Your task to perform on an android device: turn off notifications in google photos Image 0: 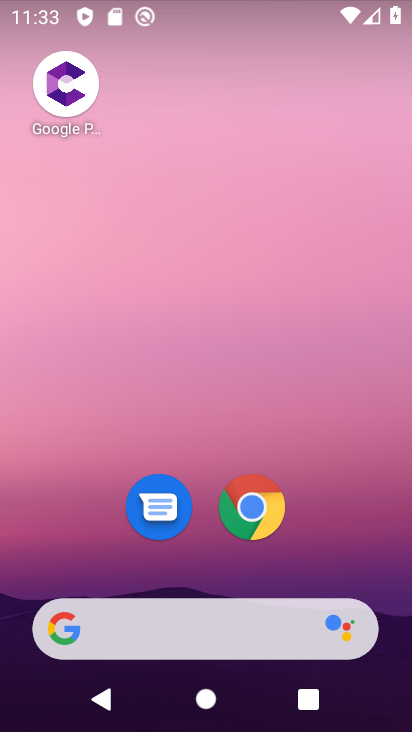
Step 0: drag from (312, 458) to (303, 61)
Your task to perform on an android device: turn off notifications in google photos Image 1: 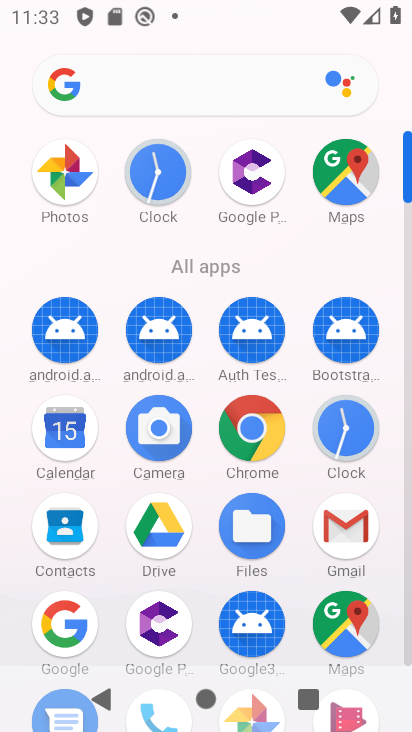
Step 1: drag from (199, 609) to (178, 264)
Your task to perform on an android device: turn off notifications in google photos Image 2: 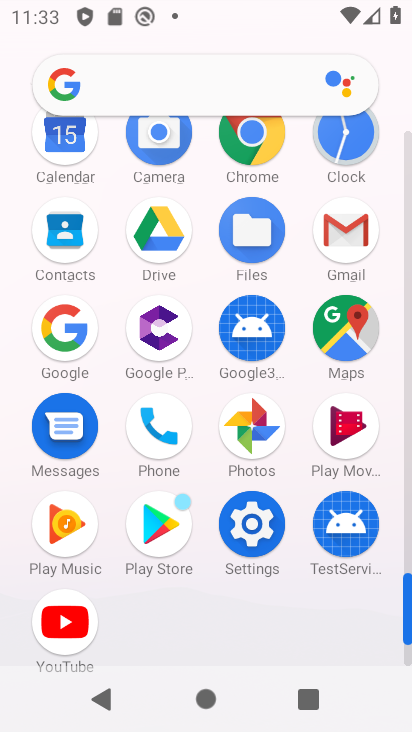
Step 2: click (238, 463)
Your task to perform on an android device: turn off notifications in google photos Image 3: 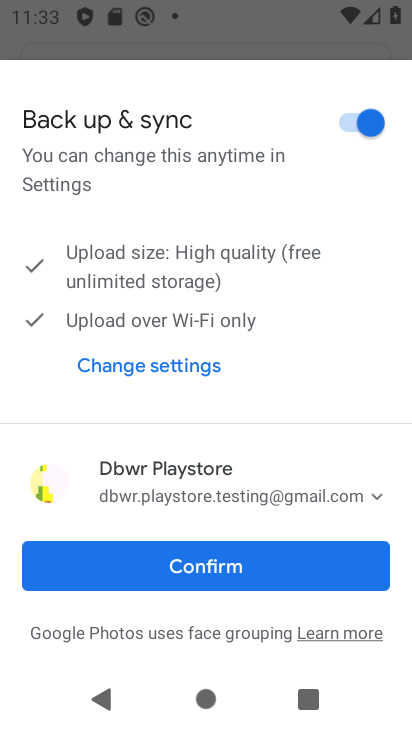
Step 3: click (236, 577)
Your task to perform on an android device: turn off notifications in google photos Image 4: 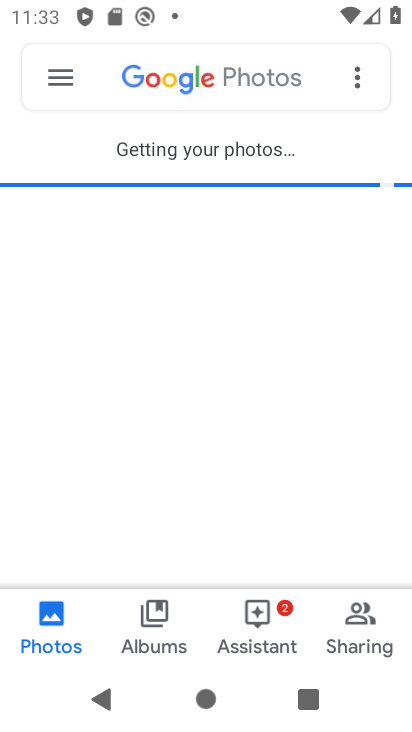
Step 4: click (53, 75)
Your task to perform on an android device: turn off notifications in google photos Image 5: 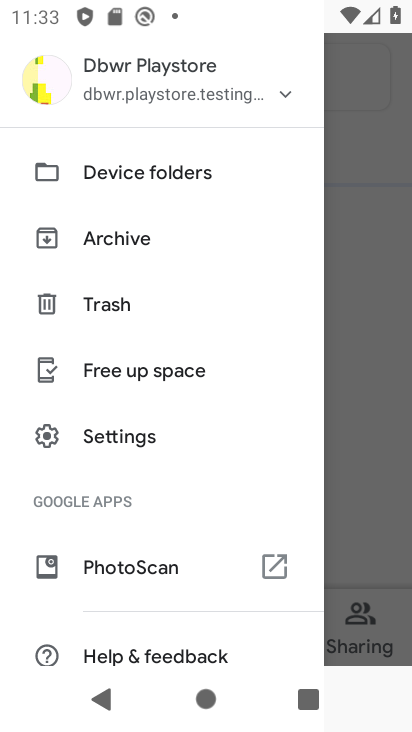
Step 5: click (132, 434)
Your task to perform on an android device: turn off notifications in google photos Image 6: 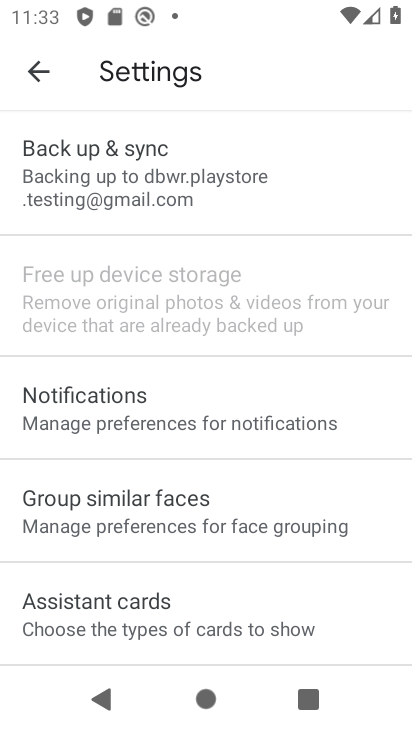
Step 6: click (163, 427)
Your task to perform on an android device: turn off notifications in google photos Image 7: 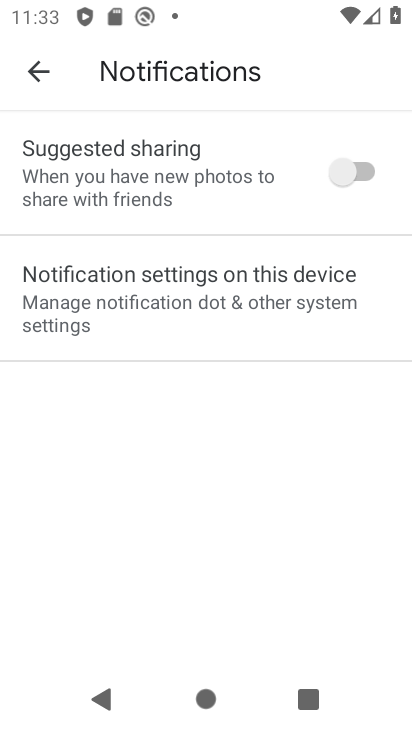
Step 7: click (192, 316)
Your task to perform on an android device: turn off notifications in google photos Image 8: 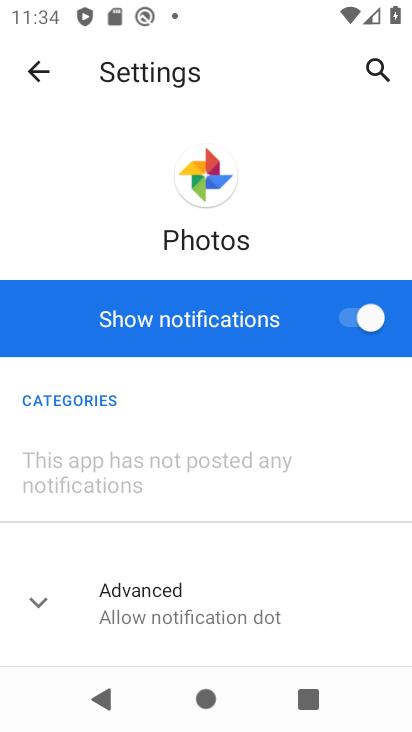
Step 8: click (381, 320)
Your task to perform on an android device: turn off notifications in google photos Image 9: 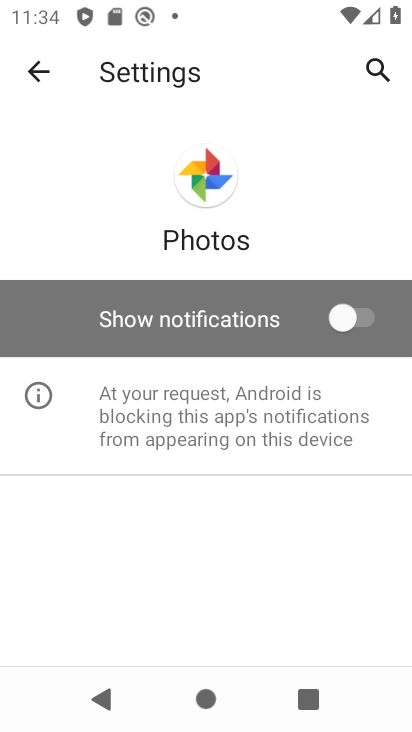
Step 9: task complete